Your task to perform on an android device: turn off wifi Image 0: 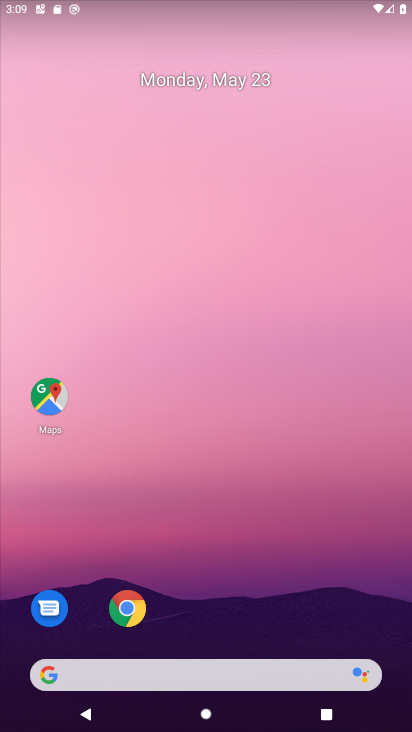
Step 0: drag from (232, 639) to (217, 162)
Your task to perform on an android device: turn off wifi Image 1: 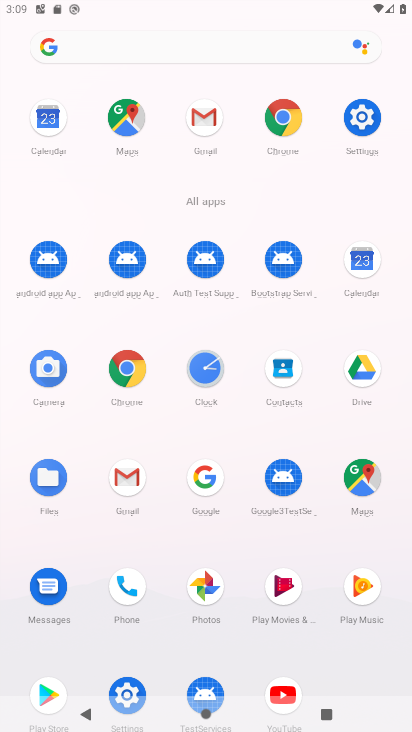
Step 1: click (358, 126)
Your task to perform on an android device: turn off wifi Image 2: 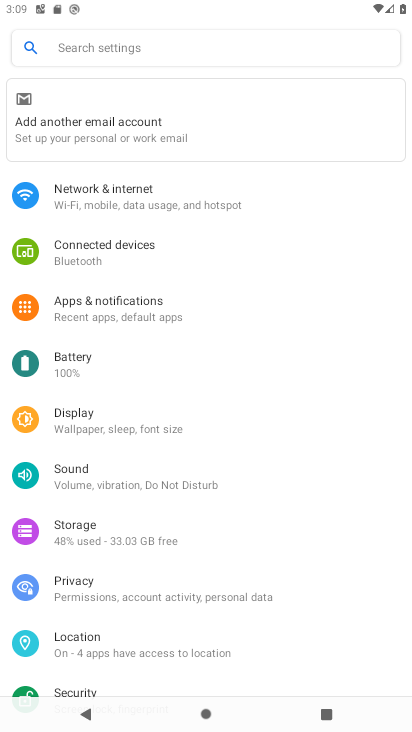
Step 2: click (206, 199)
Your task to perform on an android device: turn off wifi Image 3: 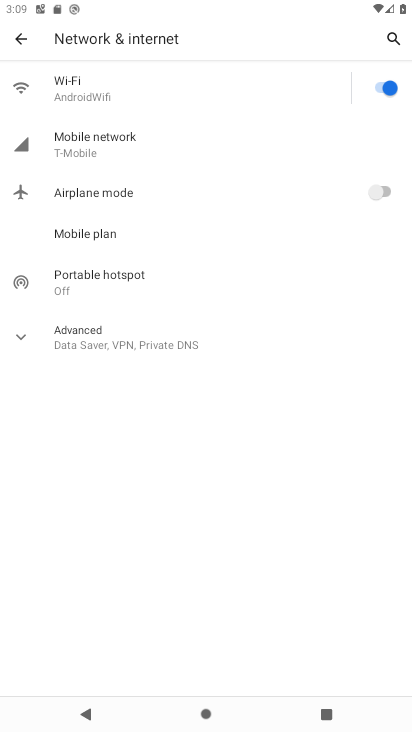
Step 3: click (388, 84)
Your task to perform on an android device: turn off wifi Image 4: 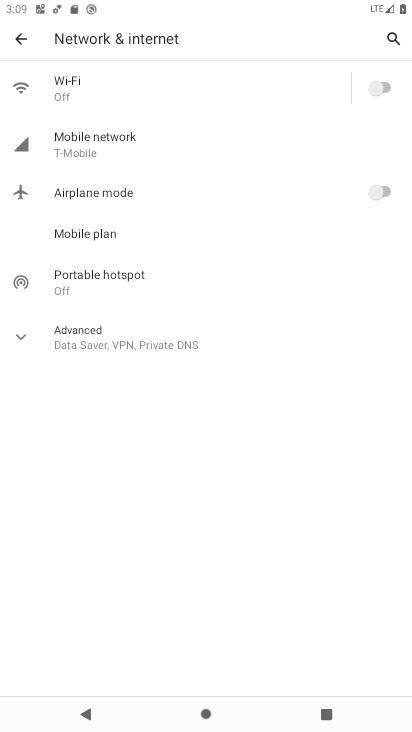
Step 4: task complete